Your task to perform on an android device: open device folders in google photos Image 0: 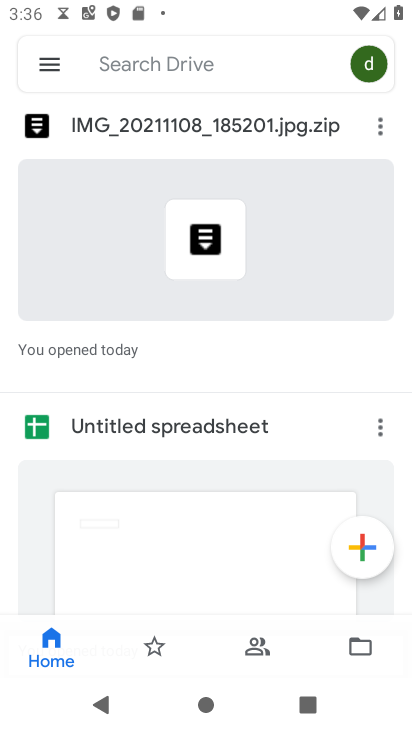
Step 0: press home button
Your task to perform on an android device: open device folders in google photos Image 1: 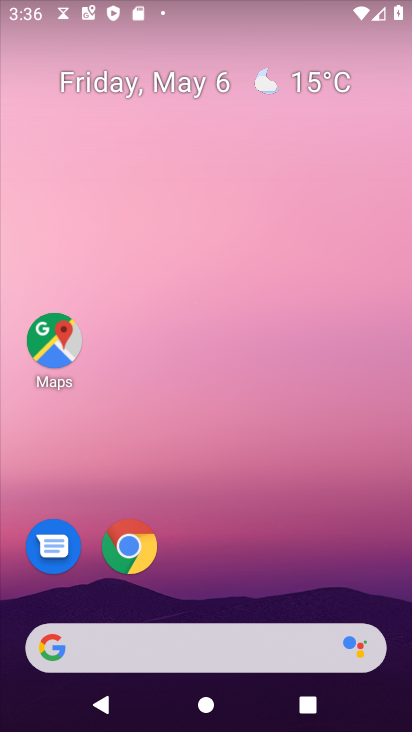
Step 1: drag from (255, 584) to (281, 50)
Your task to perform on an android device: open device folders in google photos Image 2: 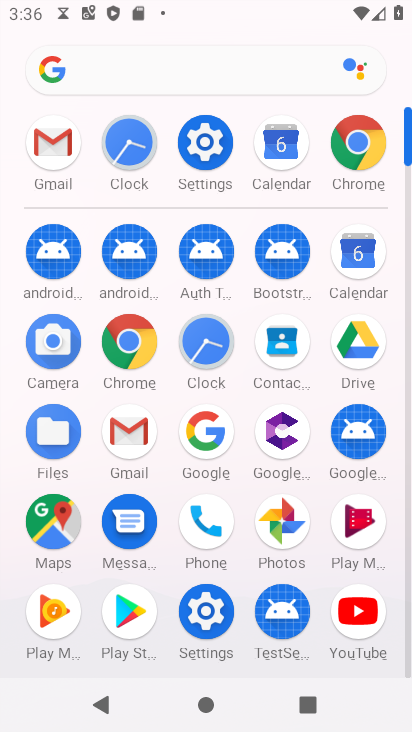
Step 2: click (282, 511)
Your task to perform on an android device: open device folders in google photos Image 3: 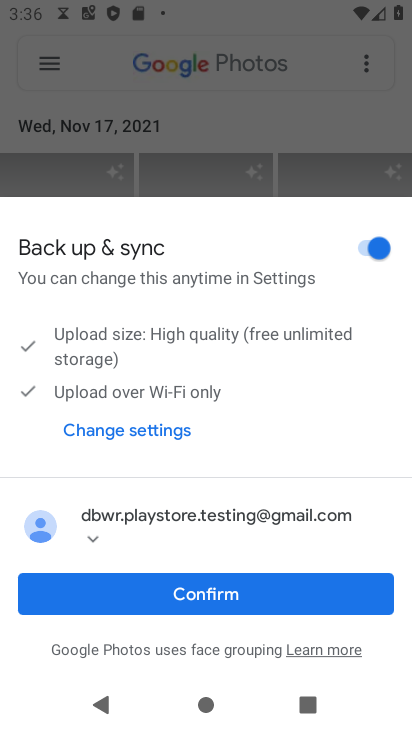
Step 3: click (268, 581)
Your task to perform on an android device: open device folders in google photos Image 4: 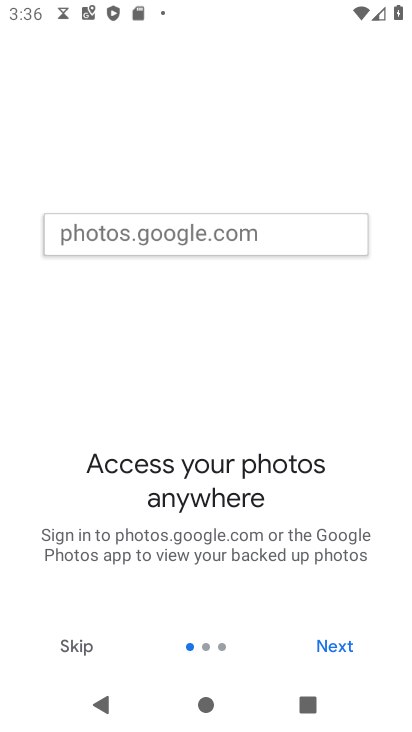
Step 4: click (331, 644)
Your task to perform on an android device: open device folders in google photos Image 5: 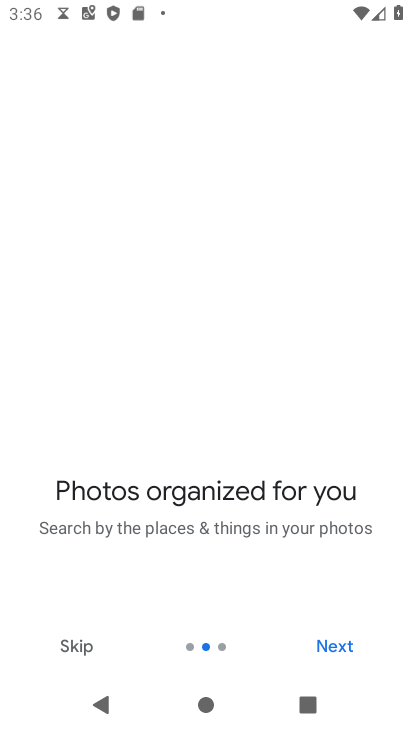
Step 5: click (331, 644)
Your task to perform on an android device: open device folders in google photos Image 6: 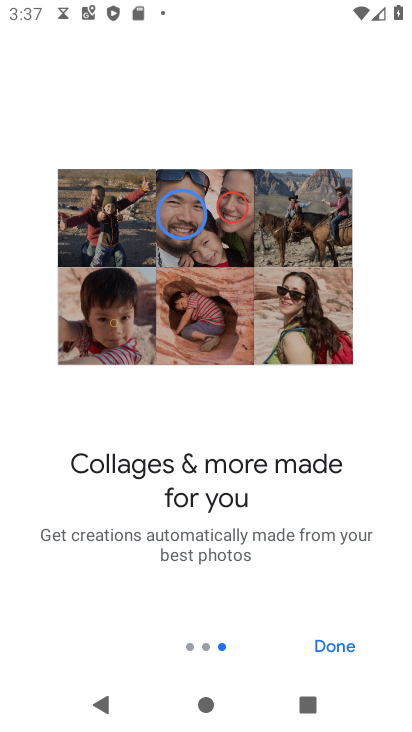
Step 6: click (331, 644)
Your task to perform on an android device: open device folders in google photos Image 7: 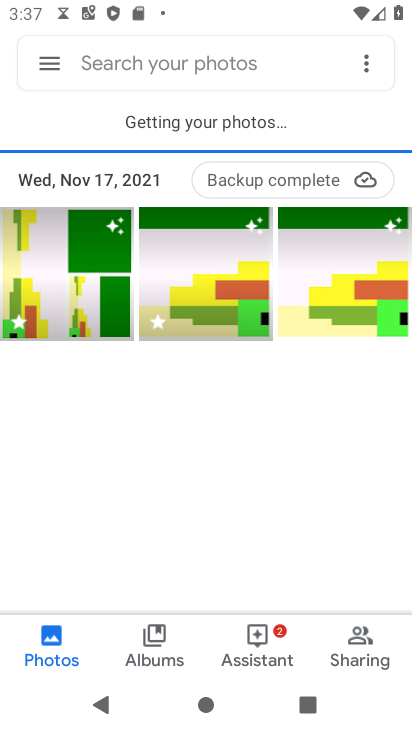
Step 7: click (55, 60)
Your task to perform on an android device: open device folders in google photos Image 8: 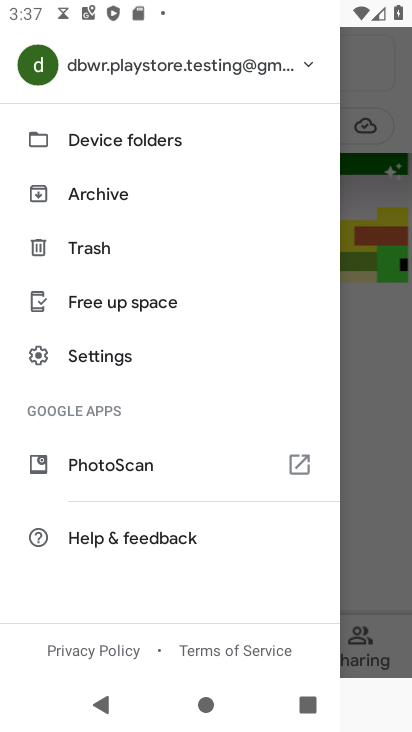
Step 8: click (94, 137)
Your task to perform on an android device: open device folders in google photos Image 9: 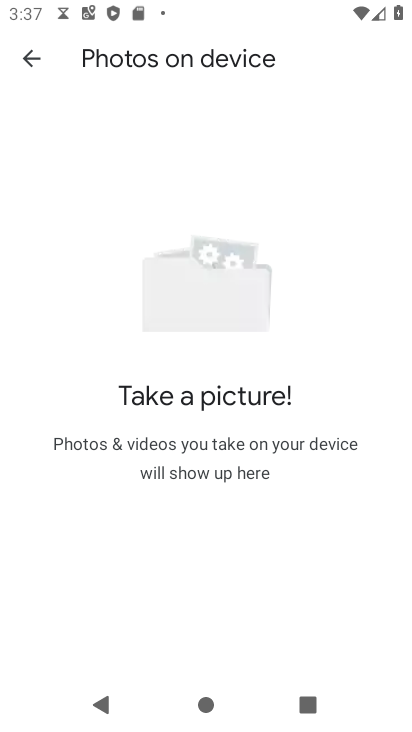
Step 9: task complete